Your task to perform on an android device: uninstall "Etsy: Buy & Sell Unique Items" Image 0: 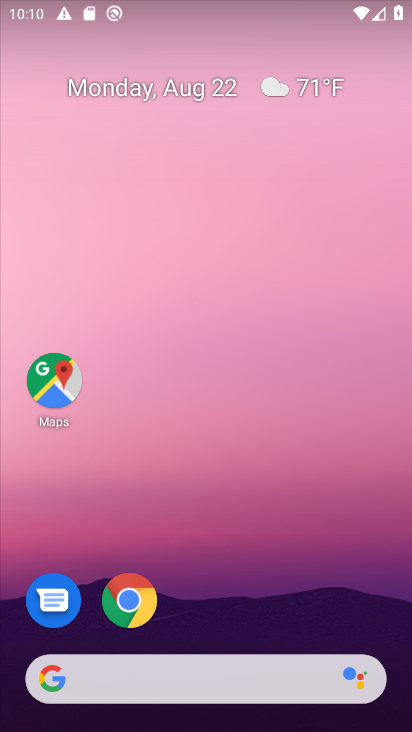
Step 0: drag from (191, 570) to (218, 147)
Your task to perform on an android device: uninstall "Etsy: Buy & Sell Unique Items" Image 1: 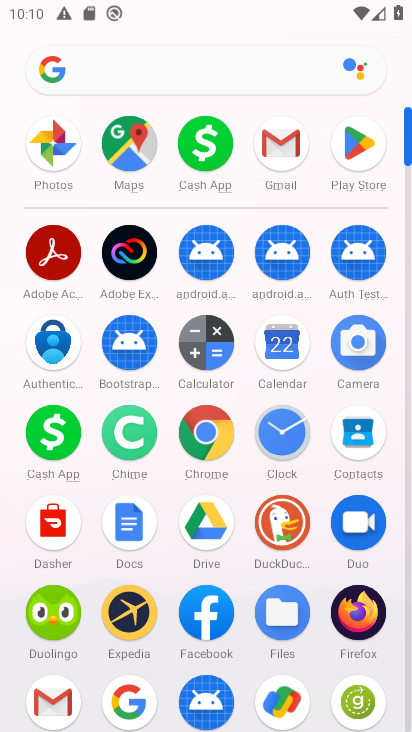
Step 1: click (368, 145)
Your task to perform on an android device: uninstall "Etsy: Buy & Sell Unique Items" Image 2: 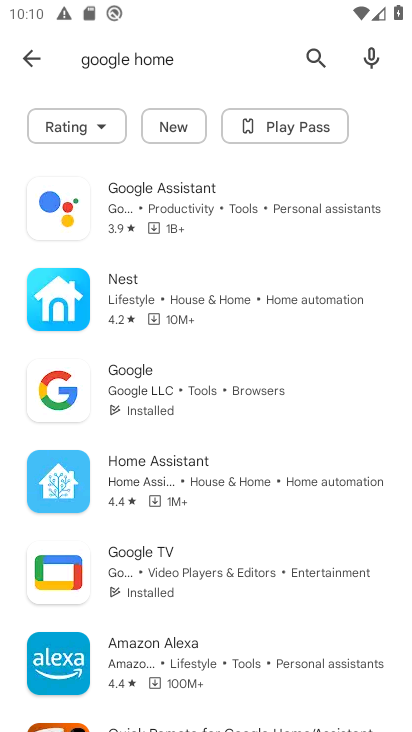
Step 2: click (316, 58)
Your task to perform on an android device: uninstall "Etsy: Buy & Sell Unique Items" Image 3: 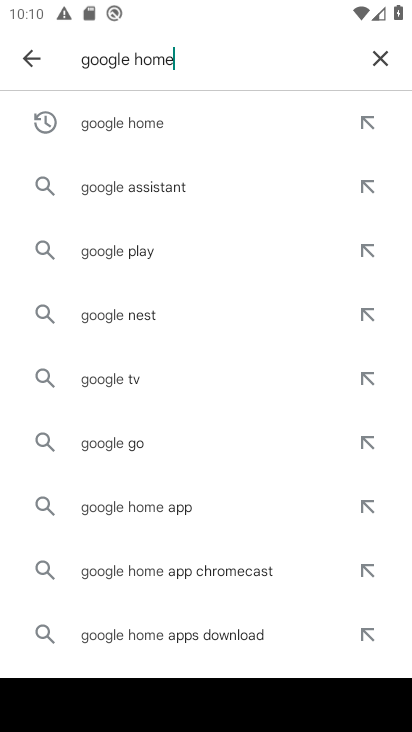
Step 3: click (375, 56)
Your task to perform on an android device: uninstall "Etsy: Buy & Sell Unique Items" Image 4: 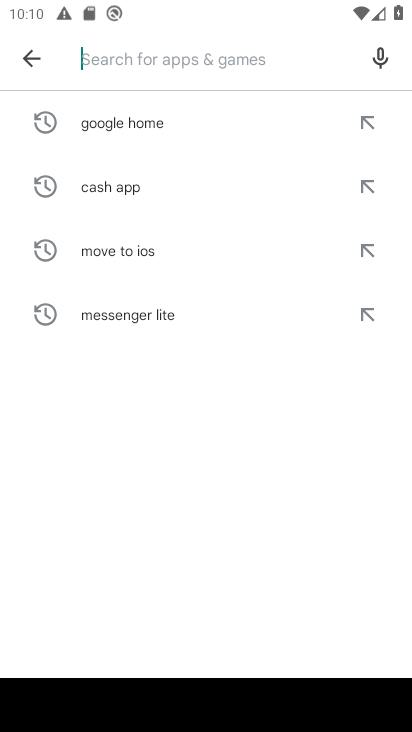
Step 4: type "Etsy: Buy & Sell Unique Items"
Your task to perform on an android device: uninstall "Etsy: Buy & Sell Unique Items" Image 5: 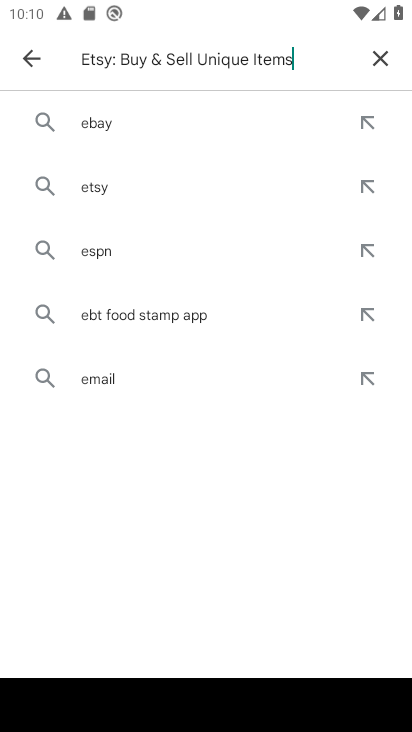
Step 5: type ""
Your task to perform on an android device: uninstall "Etsy: Buy & Sell Unique Items" Image 6: 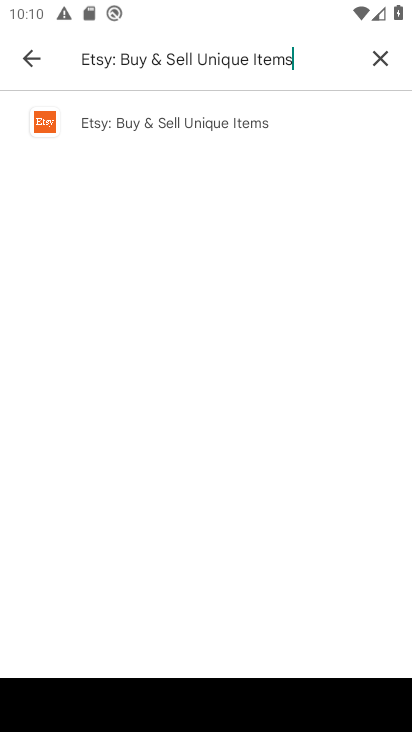
Step 6: click (177, 127)
Your task to perform on an android device: uninstall "Etsy: Buy & Sell Unique Items" Image 7: 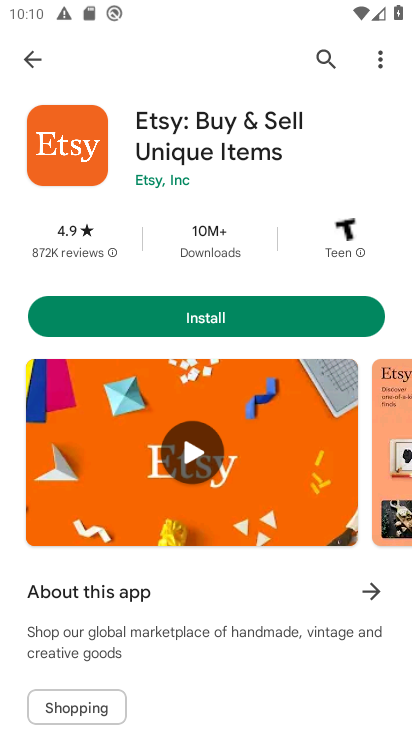
Step 7: task complete